Your task to perform on an android device: turn off picture-in-picture Image 0: 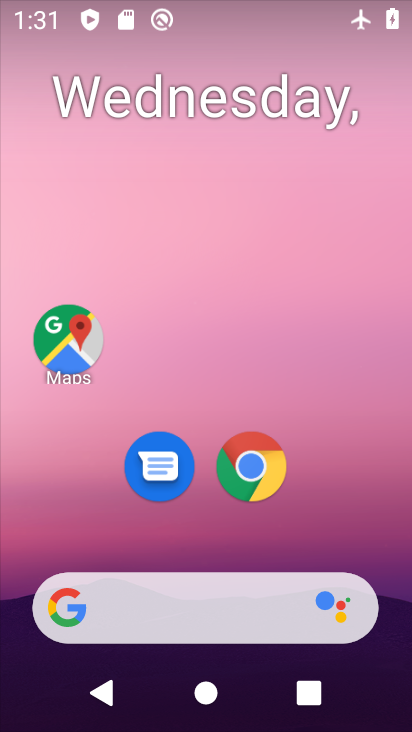
Step 0: drag from (255, 451) to (271, 399)
Your task to perform on an android device: turn off picture-in-picture Image 1: 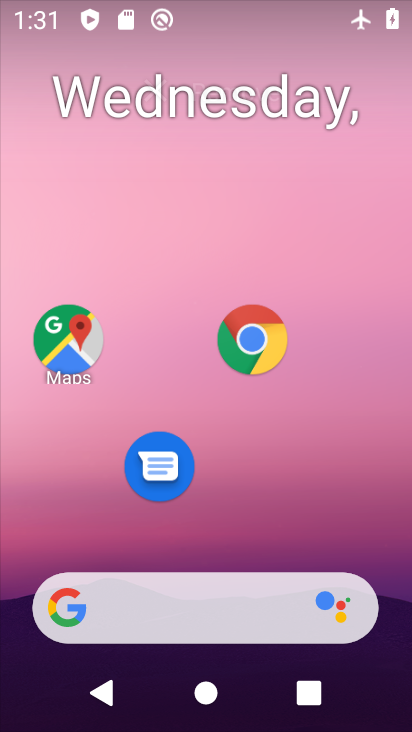
Step 1: click (263, 288)
Your task to perform on an android device: turn off picture-in-picture Image 2: 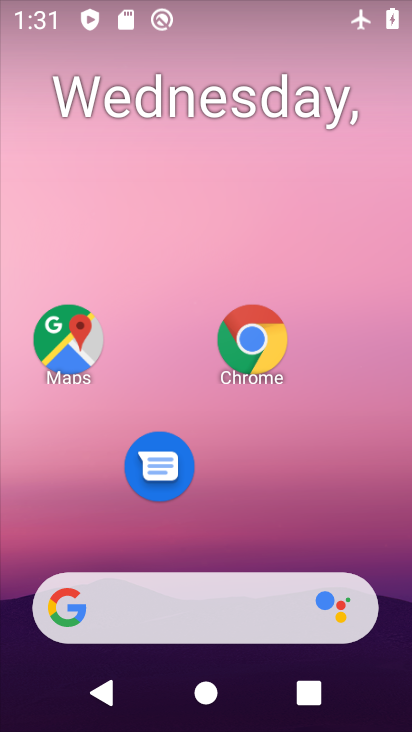
Step 2: click (257, 326)
Your task to perform on an android device: turn off picture-in-picture Image 3: 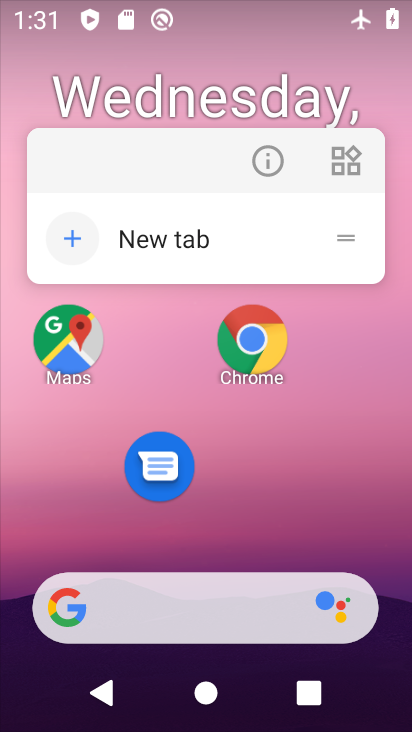
Step 3: click (269, 169)
Your task to perform on an android device: turn off picture-in-picture Image 4: 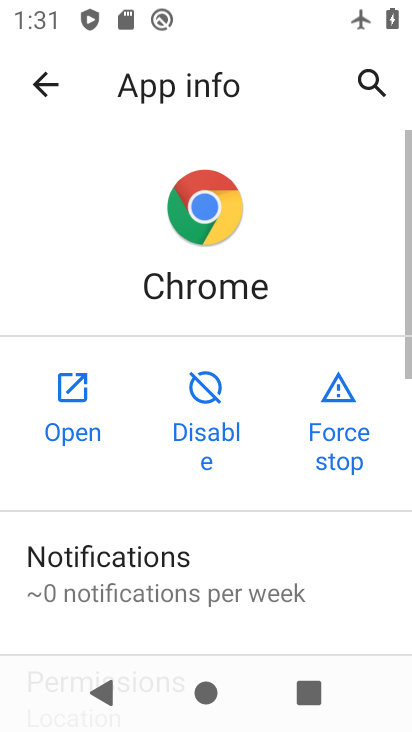
Step 4: drag from (160, 620) to (326, 134)
Your task to perform on an android device: turn off picture-in-picture Image 5: 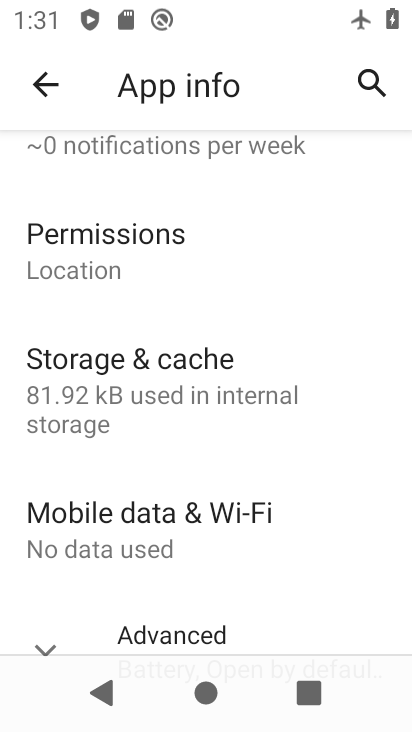
Step 5: drag from (164, 603) to (287, 132)
Your task to perform on an android device: turn off picture-in-picture Image 6: 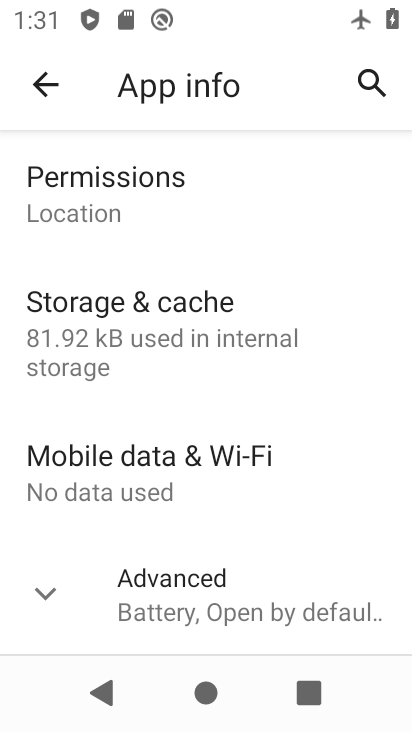
Step 6: click (111, 578)
Your task to perform on an android device: turn off picture-in-picture Image 7: 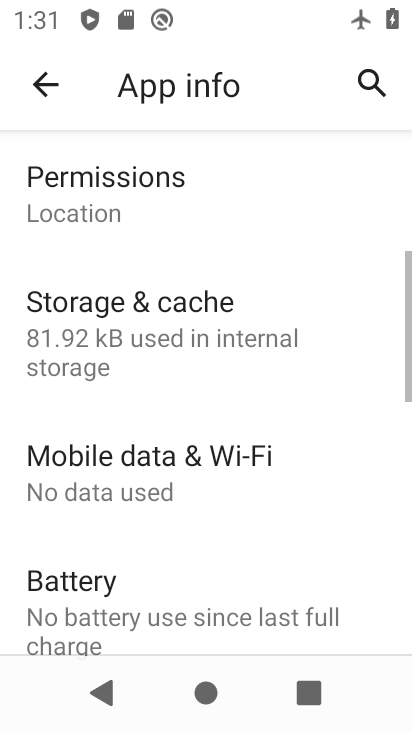
Step 7: drag from (199, 572) to (369, 0)
Your task to perform on an android device: turn off picture-in-picture Image 8: 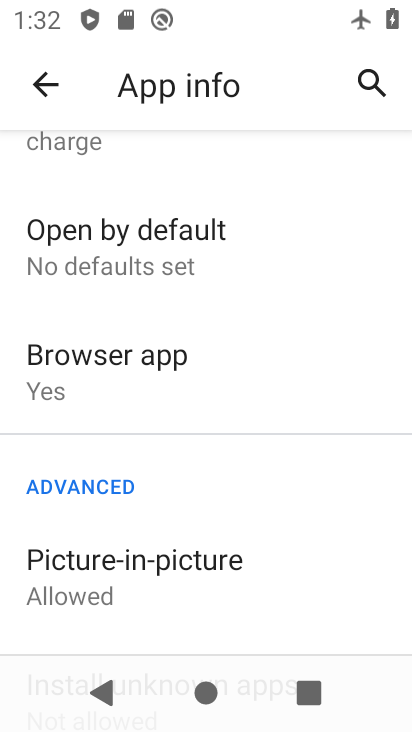
Step 8: click (103, 562)
Your task to perform on an android device: turn off picture-in-picture Image 9: 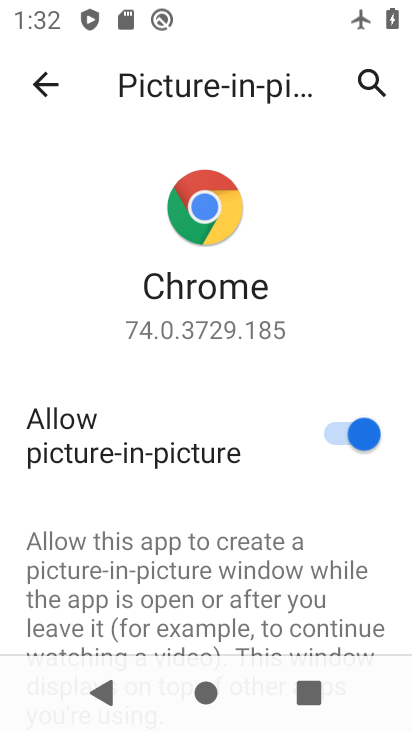
Step 9: click (345, 431)
Your task to perform on an android device: turn off picture-in-picture Image 10: 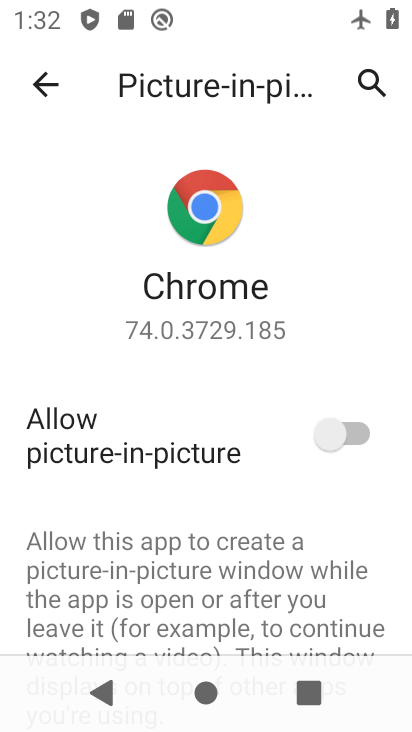
Step 10: task complete